Your task to perform on an android device: Open maps Image 0: 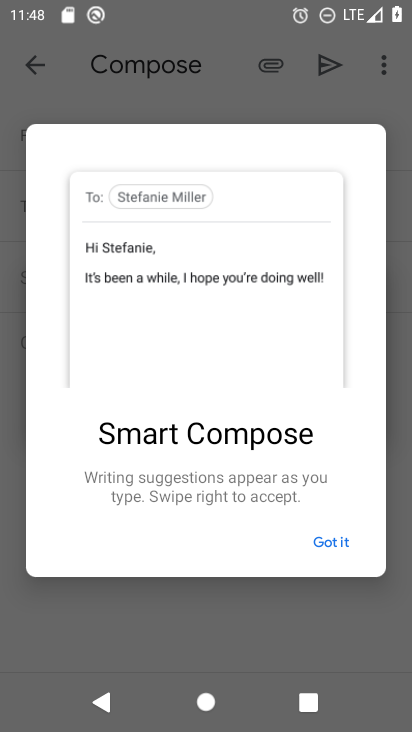
Step 0: press home button
Your task to perform on an android device: Open maps Image 1: 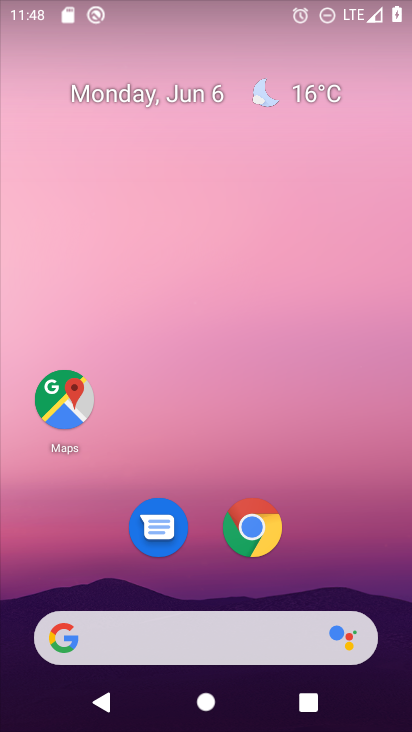
Step 1: drag from (359, 543) to (357, 110)
Your task to perform on an android device: Open maps Image 2: 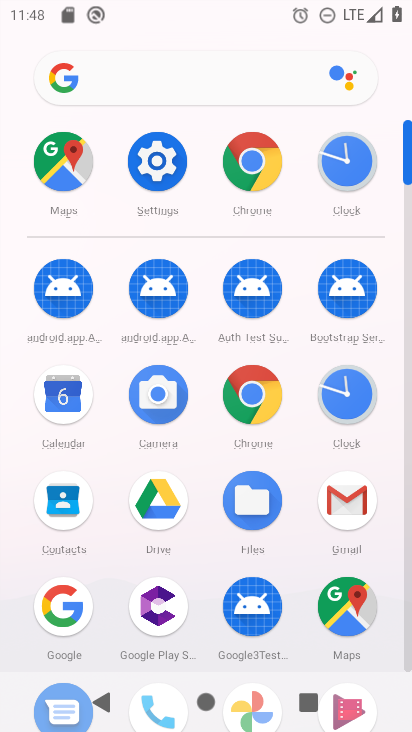
Step 2: click (344, 599)
Your task to perform on an android device: Open maps Image 3: 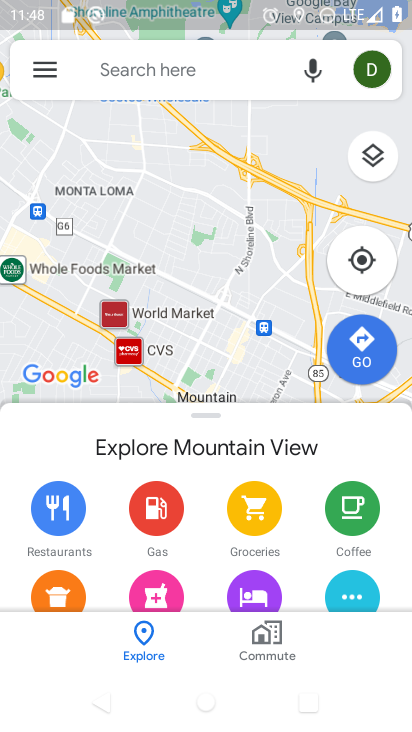
Step 3: task complete